Your task to perform on an android device: Go to notification settings Image 0: 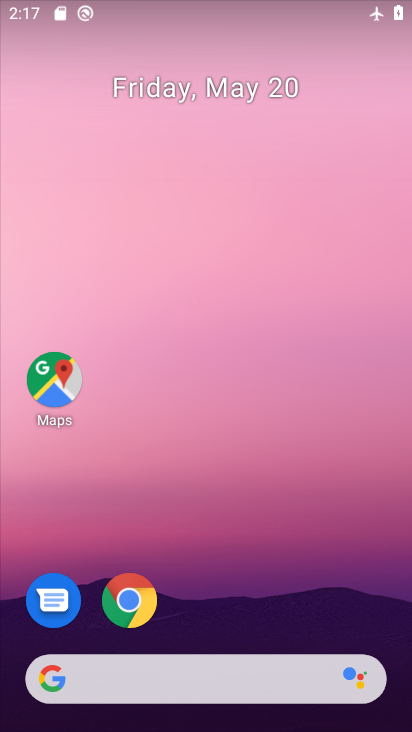
Step 0: drag from (299, 575) to (115, 46)
Your task to perform on an android device: Go to notification settings Image 1: 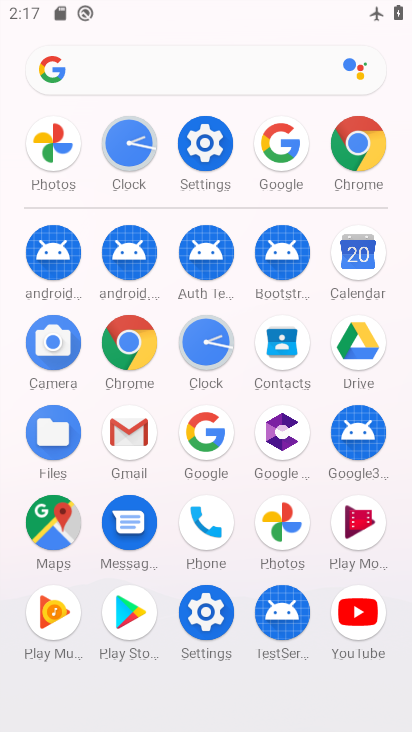
Step 1: click (195, 144)
Your task to perform on an android device: Go to notification settings Image 2: 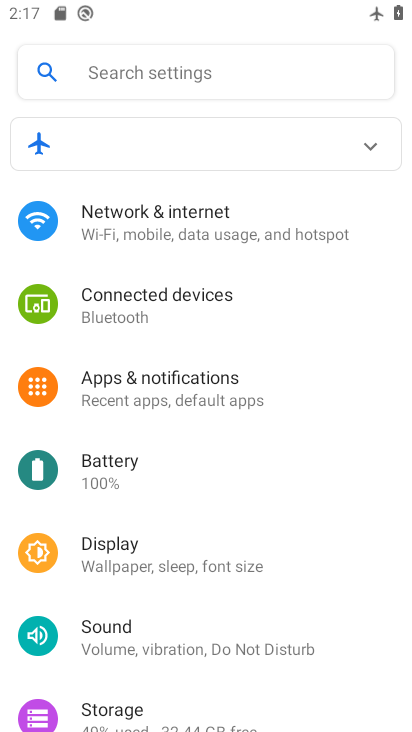
Step 2: click (236, 384)
Your task to perform on an android device: Go to notification settings Image 3: 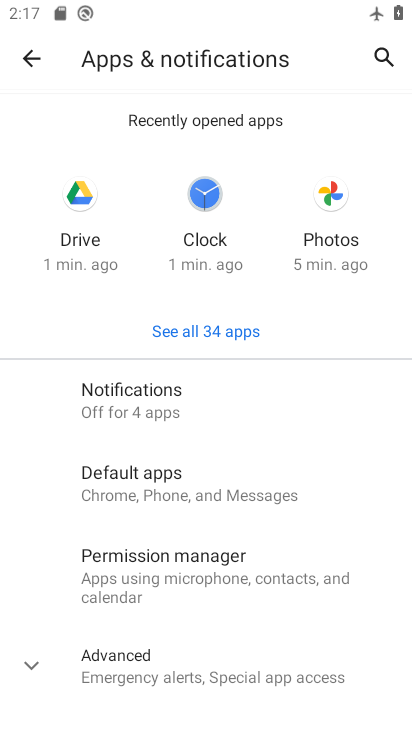
Step 3: task complete